Your task to perform on an android device: install app "Spotify: Music and Podcasts" Image 0: 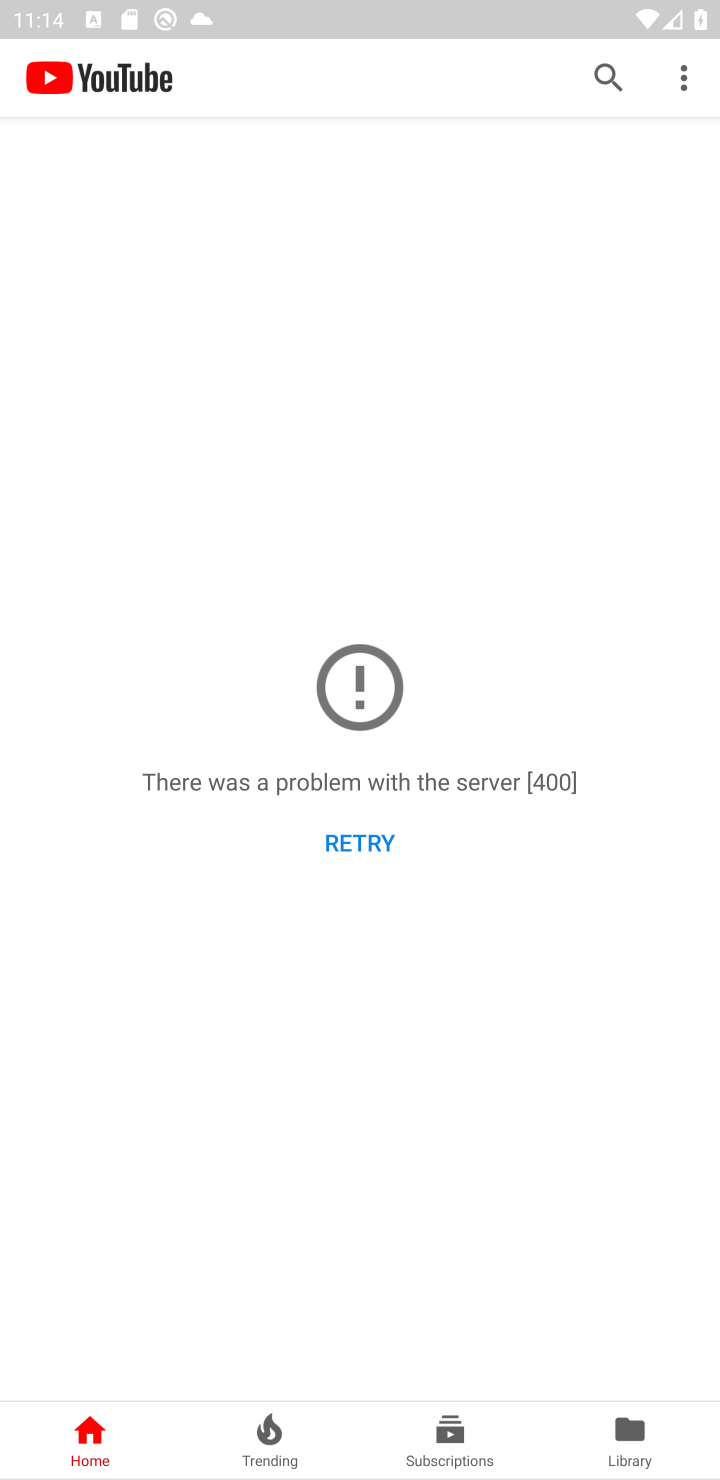
Step 0: press home button
Your task to perform on an android device: install app "Spotify: Music and Podcasts" Image 1: 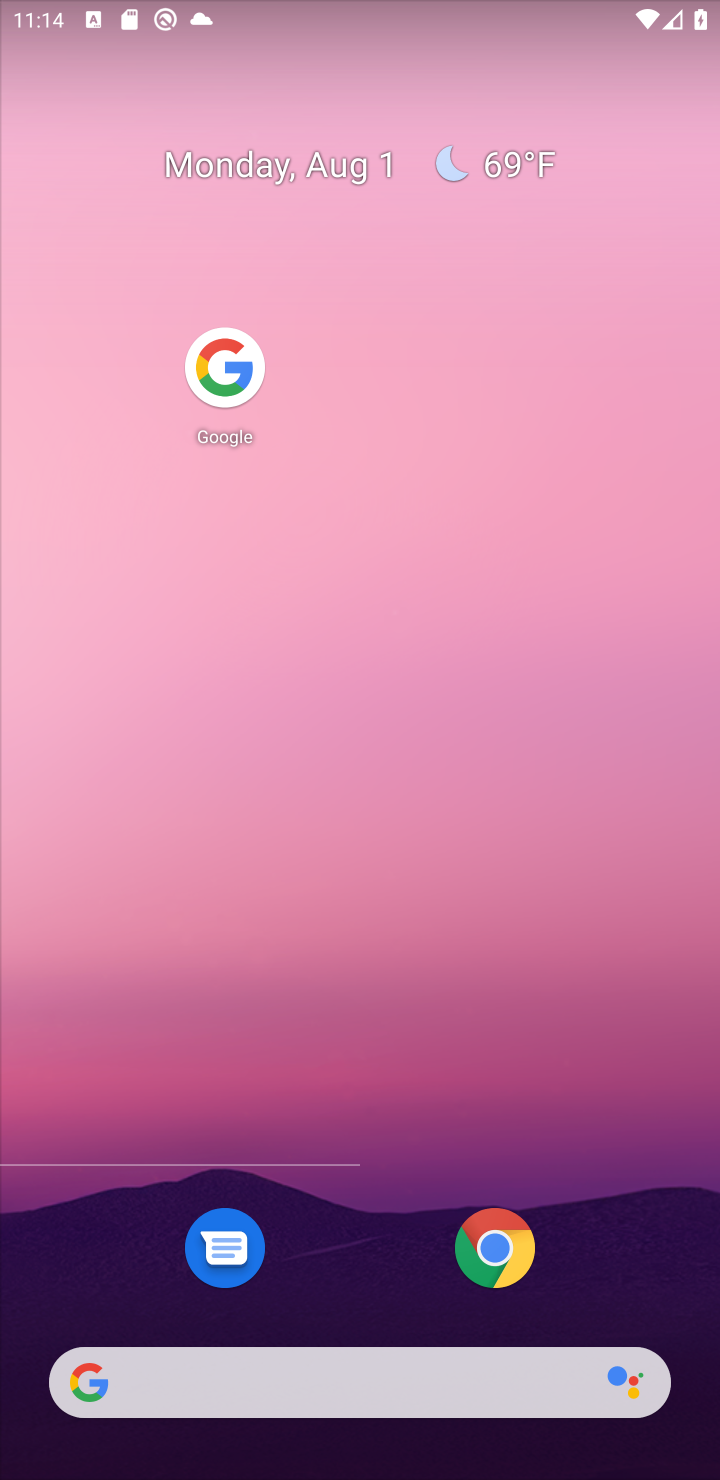
Step 1: drag from (601, 1080) to (570, 194)
Your task to perform on an android device: install app "Spotify: Music and Podcasts" Image 2: 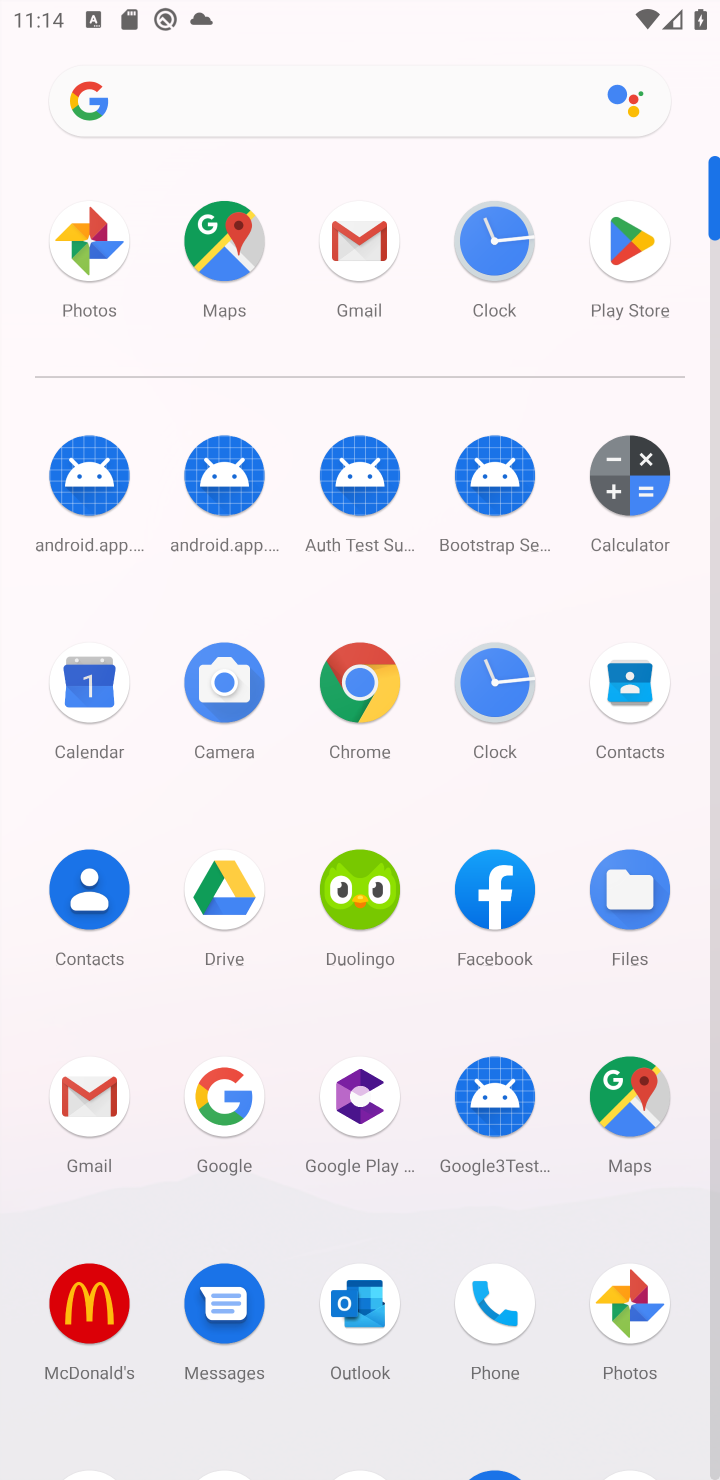
Step 2: drag from (406, 1204) to (398, 577)
Your task to perform on an android device: install app "Spotify: Music and Podcasts" Image 3: 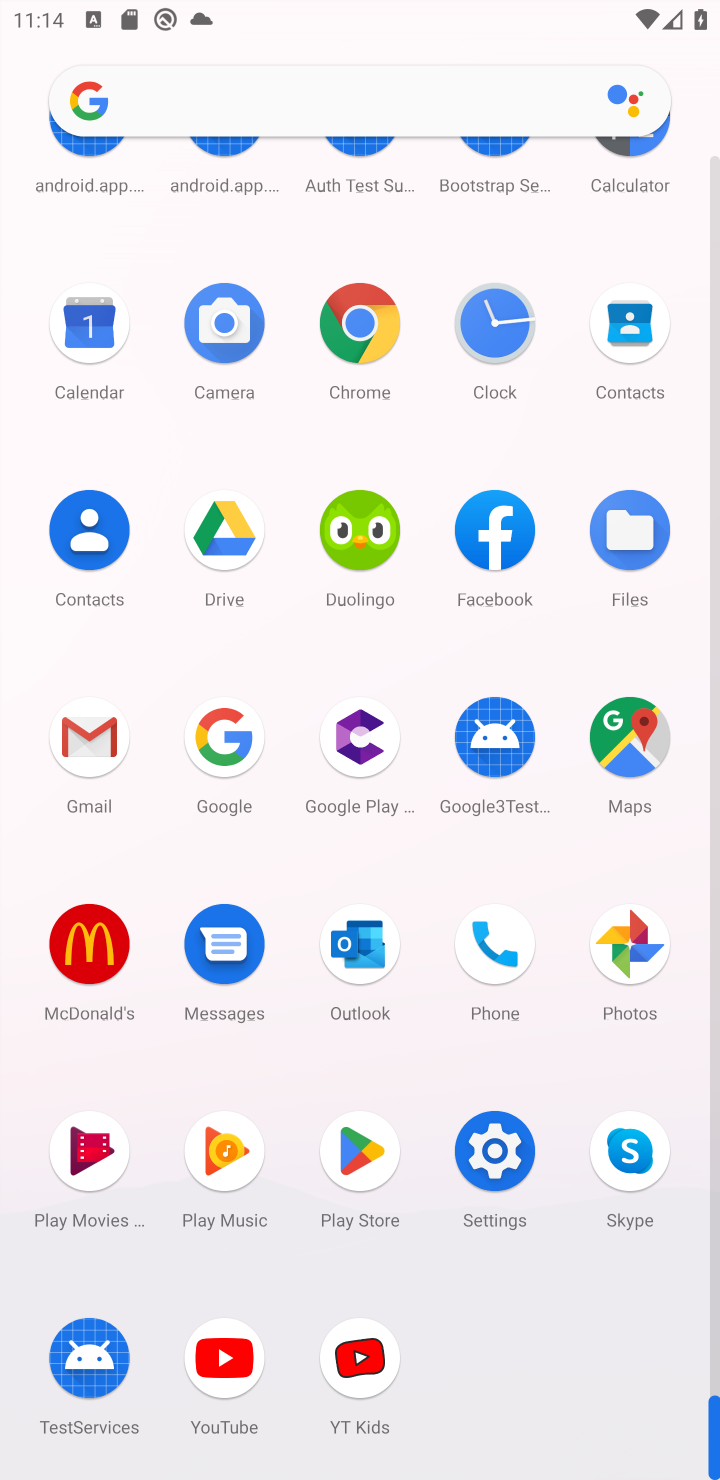
Step 3: click (338, 1154)
Your task to perform on an android device: install app "Spotify: Music and Podcasts" Image 4: 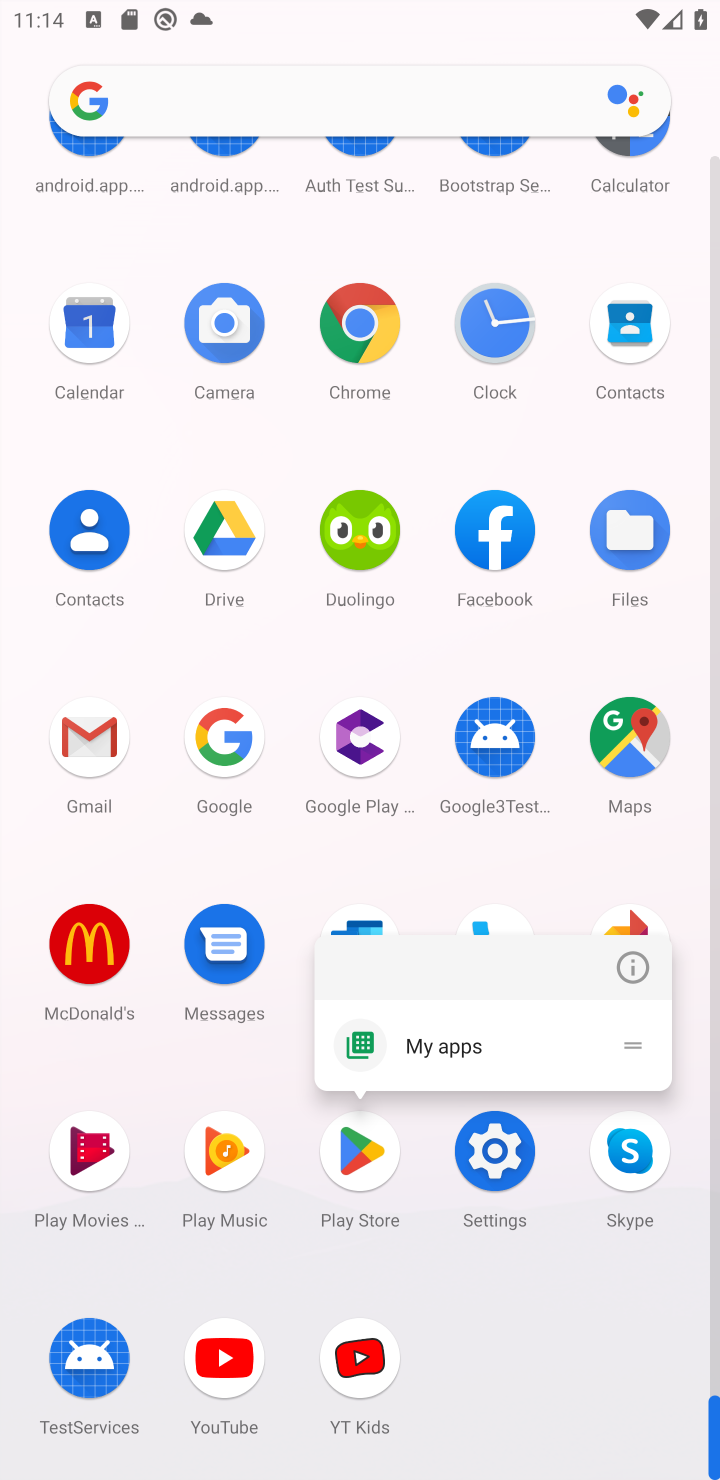
Step 4: click (361, 1149)
Your task to perform on an android device: install app "Spotify: Music and Podcasts" Image 5: 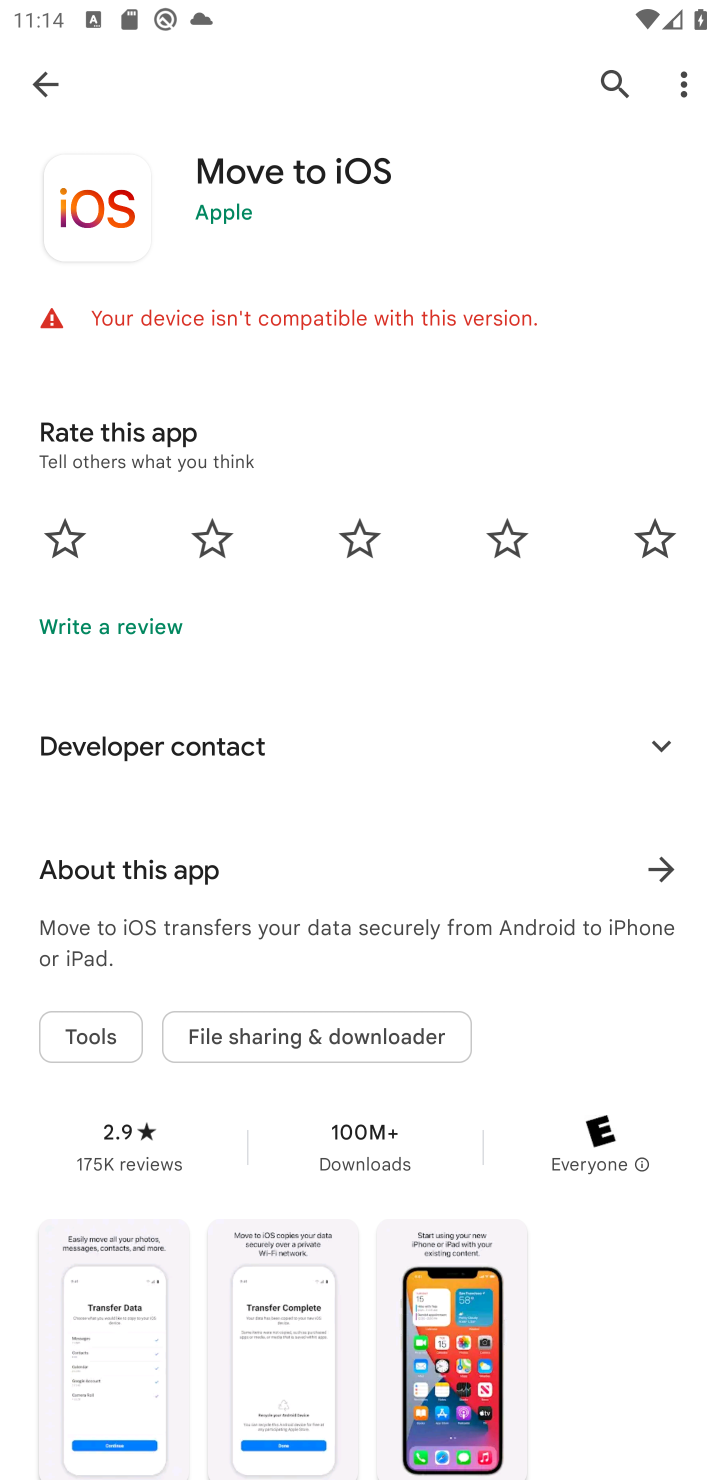
Step 5: click (611, 71)
Your task to perform on an android device: install app "Spotify: Music and Podcasts" Image 6: 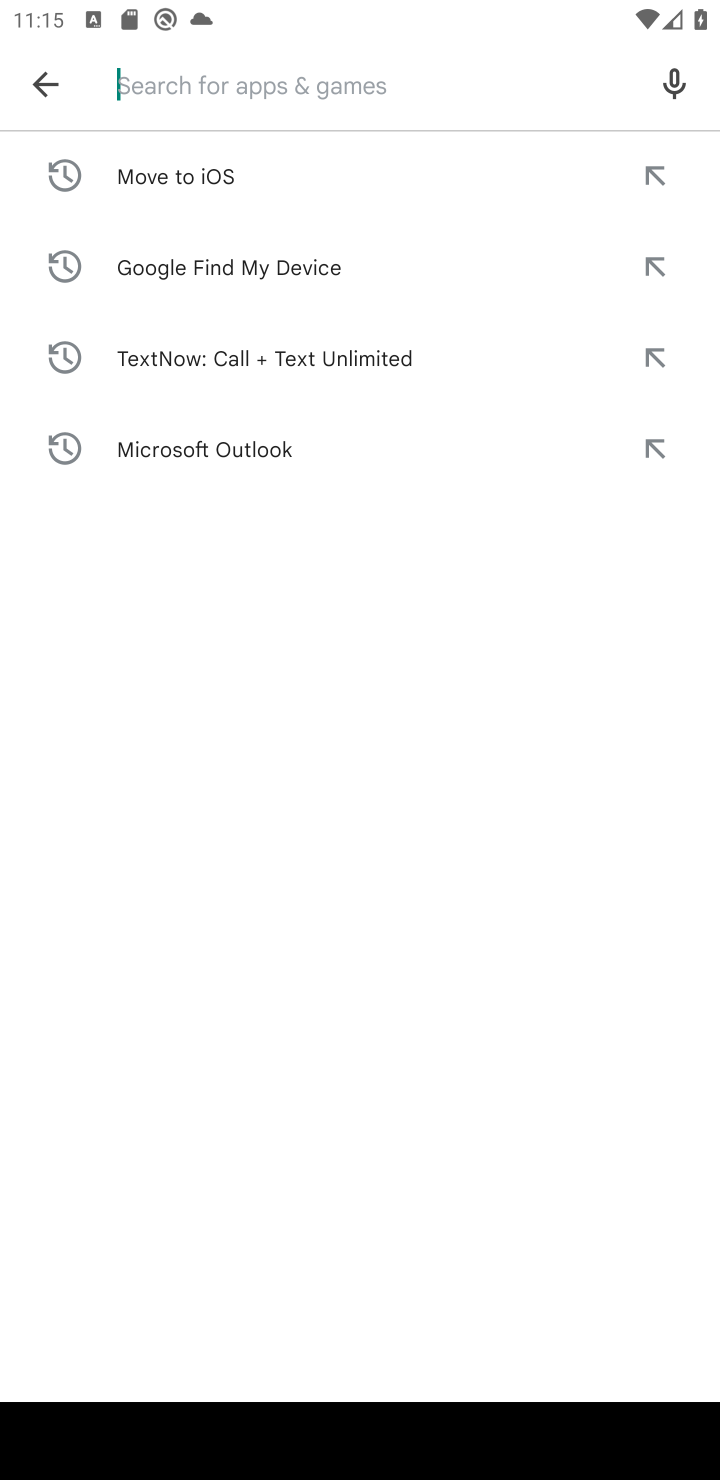
Step 6: type "Spotify: Music and Podcasts"
Your task to perform on an android device: install app "Spotify: Music and Podcasts" Image 7: 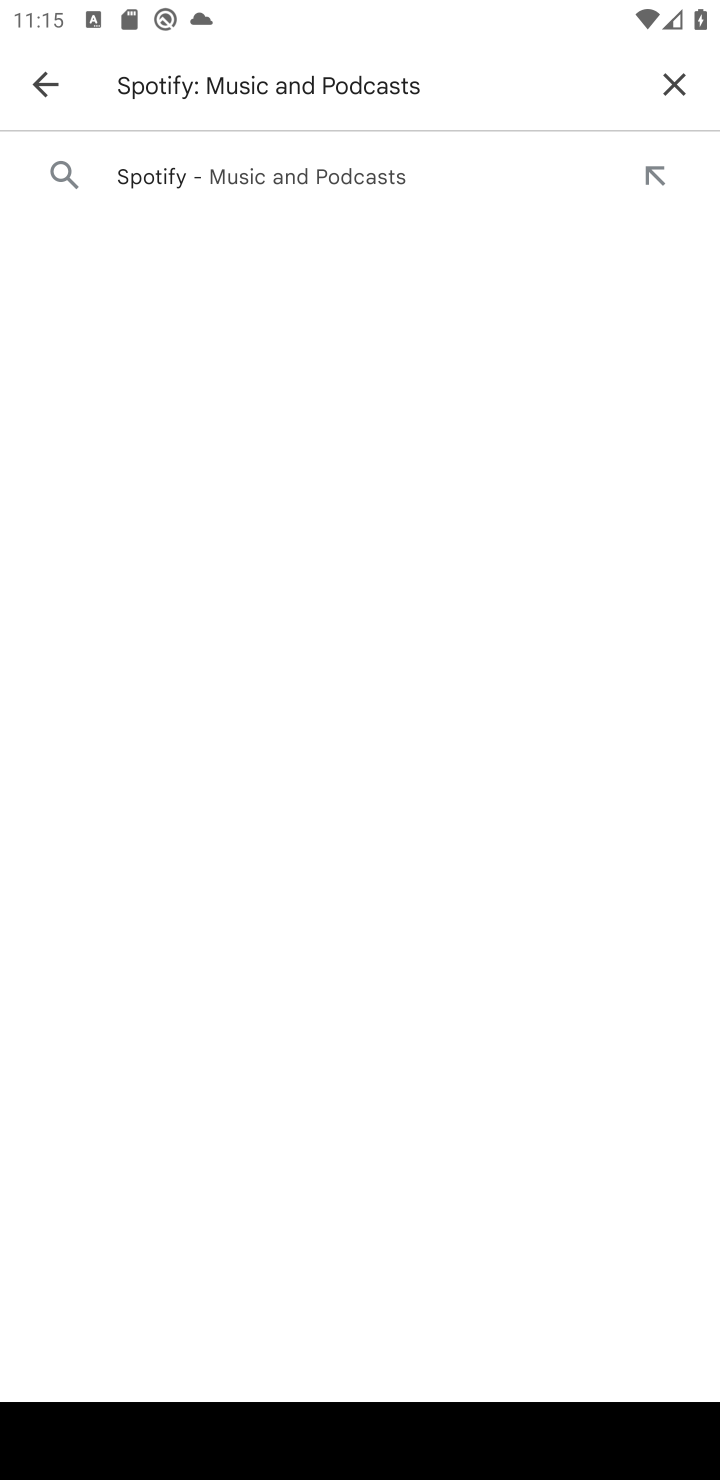
Step 7: press enter
Your task to perform on an android device: install app "Spotify: Music and Podcasts" Image 8: 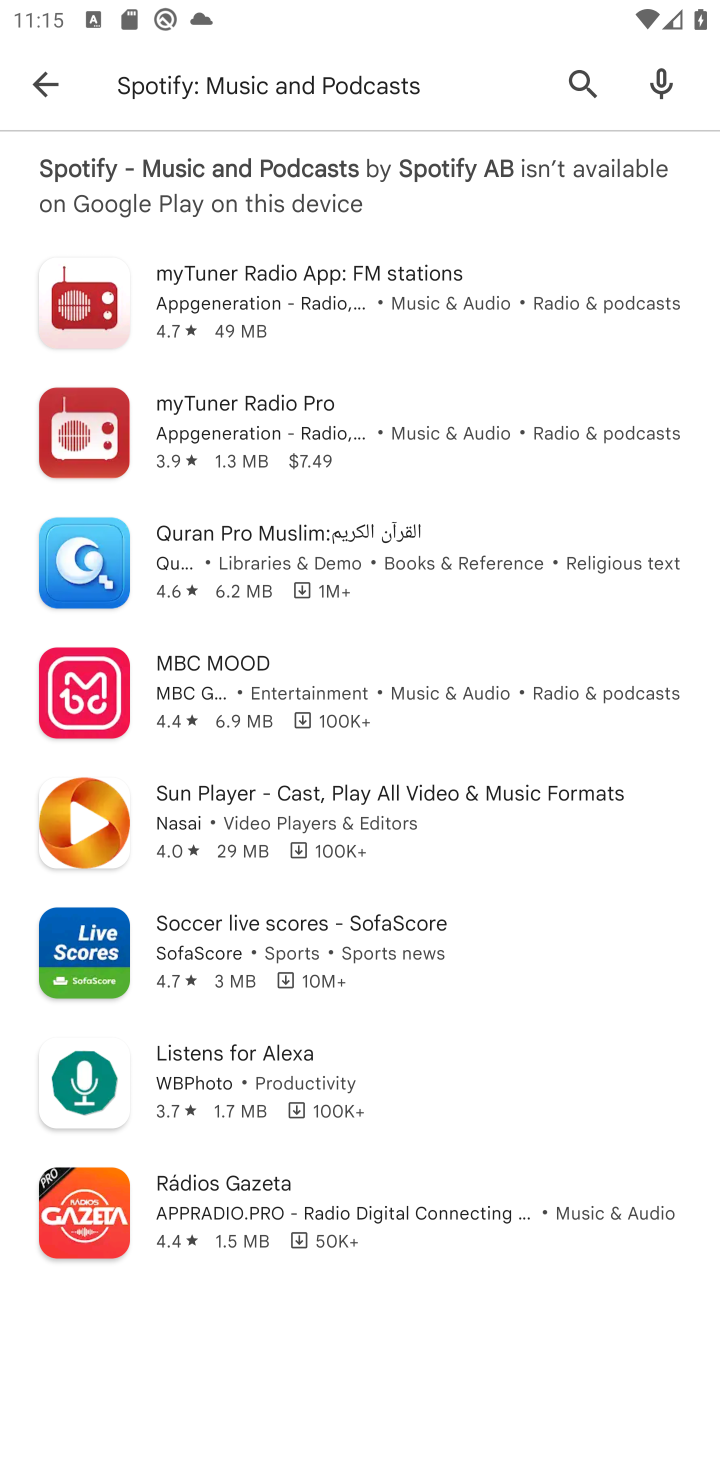
Step 8: task complete